Your task to perform on an android device: turn on notifications settings in the gmail app Image 0: 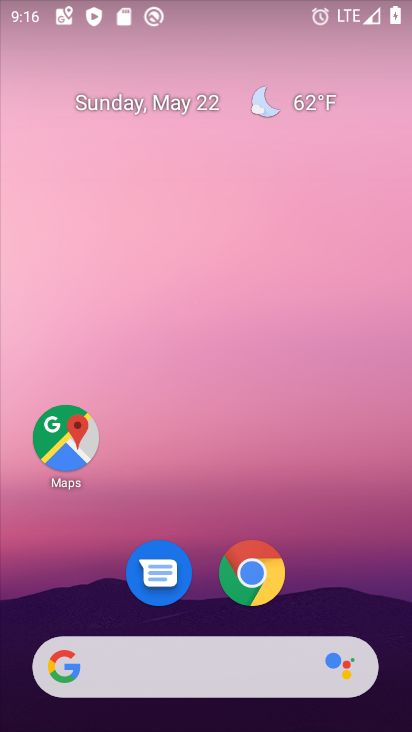
Step 0: drag from (225, 602) to (332, 27)
Your task to perform on an android device: turn on notifications settings in the gmail app Image 1: 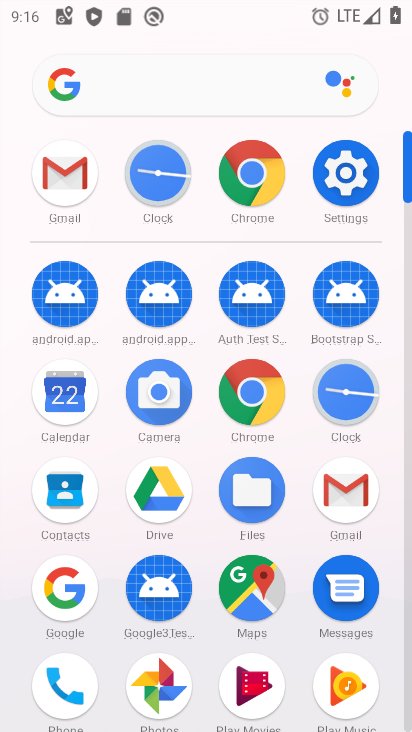
Step 1: click (339, 505)
Your task to perform on an android device: turn on notifications settings in the gmail app Image 2: 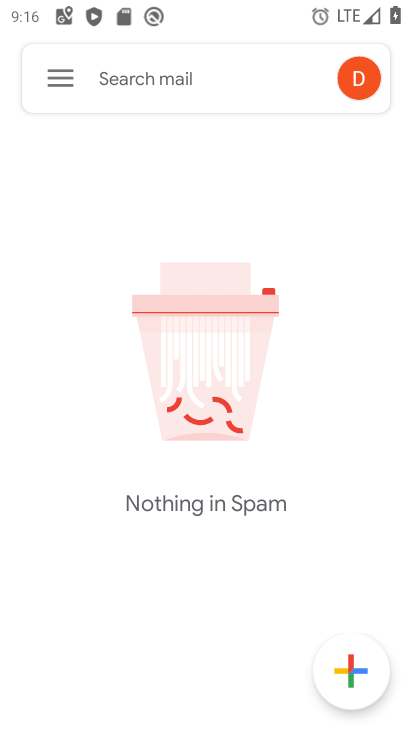
Step 2: click (64, 92)
Your task to perform on an android device: turn on notifications settings in the gmail app Image 3: 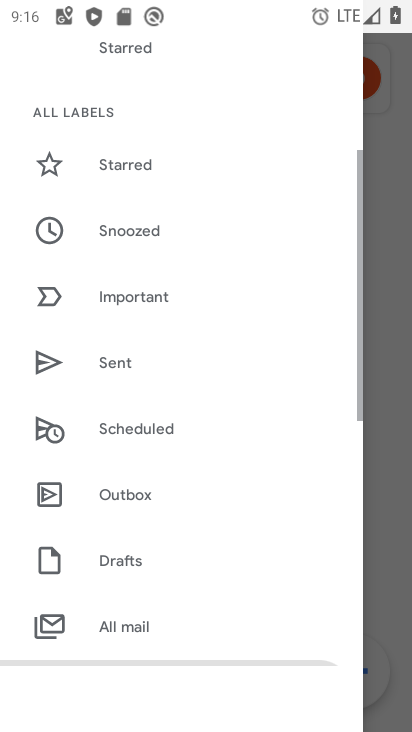
Step 3: drag from (220, 576) to (188, 68)
Your task to perform on an android device: turn on notifications settings in the gmail app Image 4: 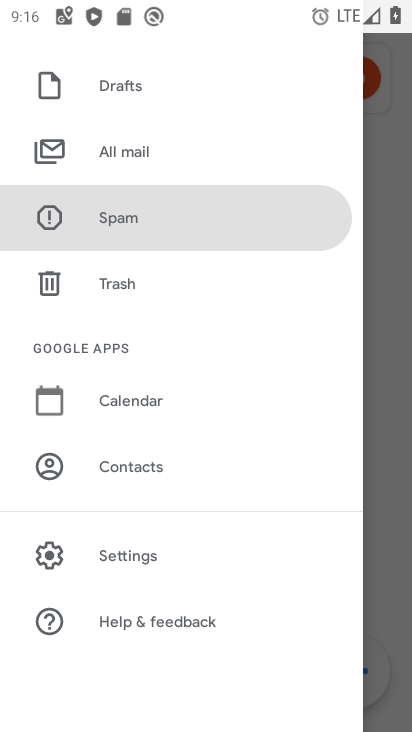
Step 4: click (156, 552)
Your task to perform on an android device: turn on notifications settings in the gmail app Image 5: 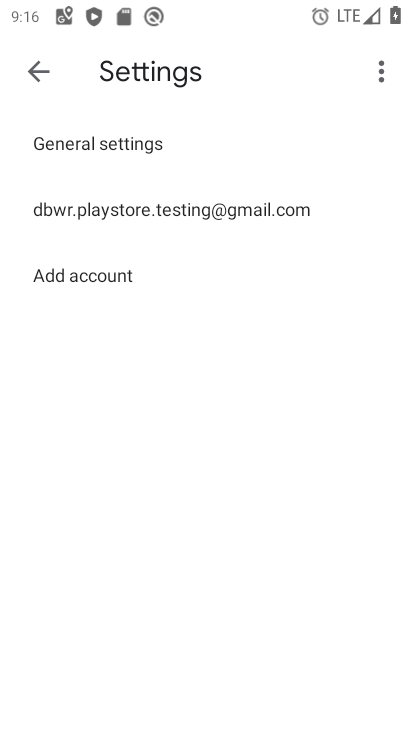
Step 5: click (238, 213)
Your task to perform on an android device: turn on notifications settings in the gmail app Image 6: 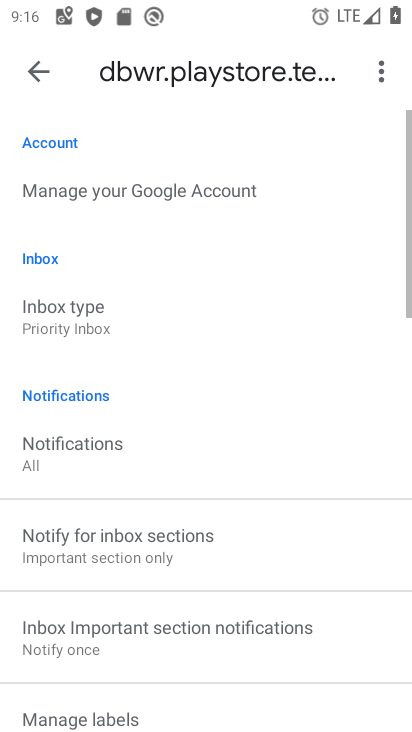
Step 6: drag from (211, 588) to (334, 1)
Your task to perform on an android device: turn on notifications settings in the gmail app Image 7: 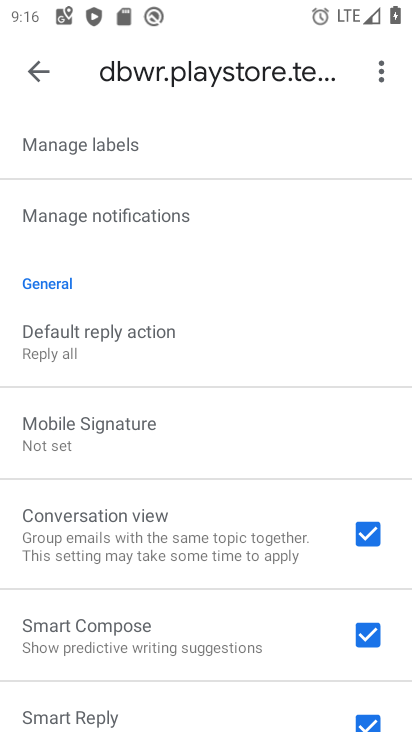
Step 7: click (128, 216)
Your task to perform on an android device: turn on notifications settings in the gmail app Image 8: 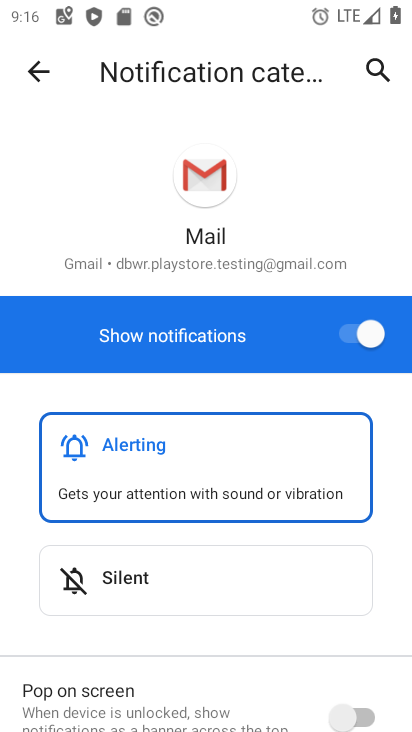
Step 8: task complete